Your task to perform on an android device: install app "TextNow: Call + Text Unlimited" Image 0: 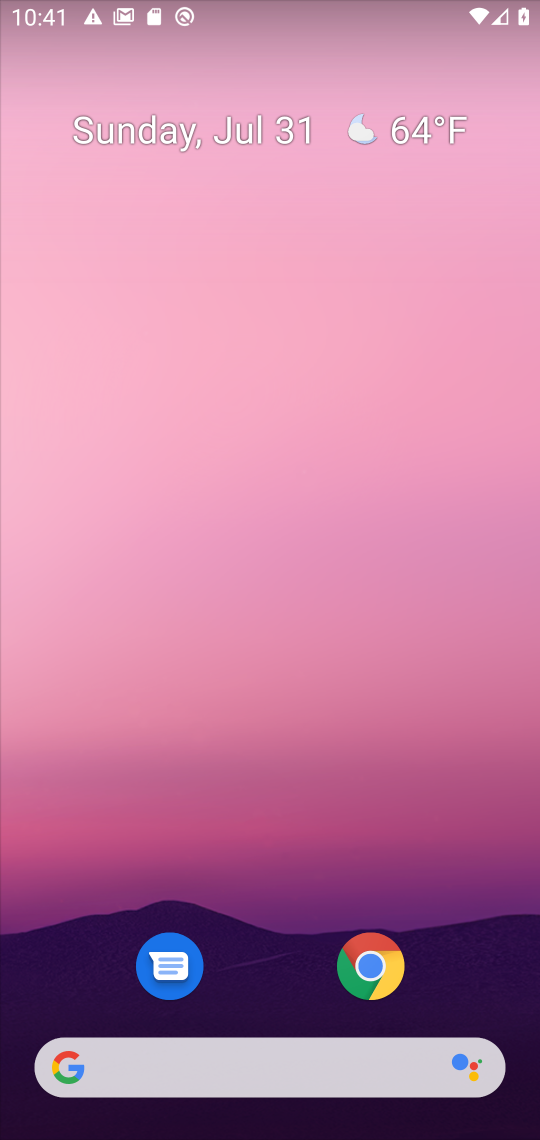
Step 0: drag from (277, 984) to (135, 3)
Your task to perform on an android device: install app "TextNow: Call + Text Unlimited" Image 1: 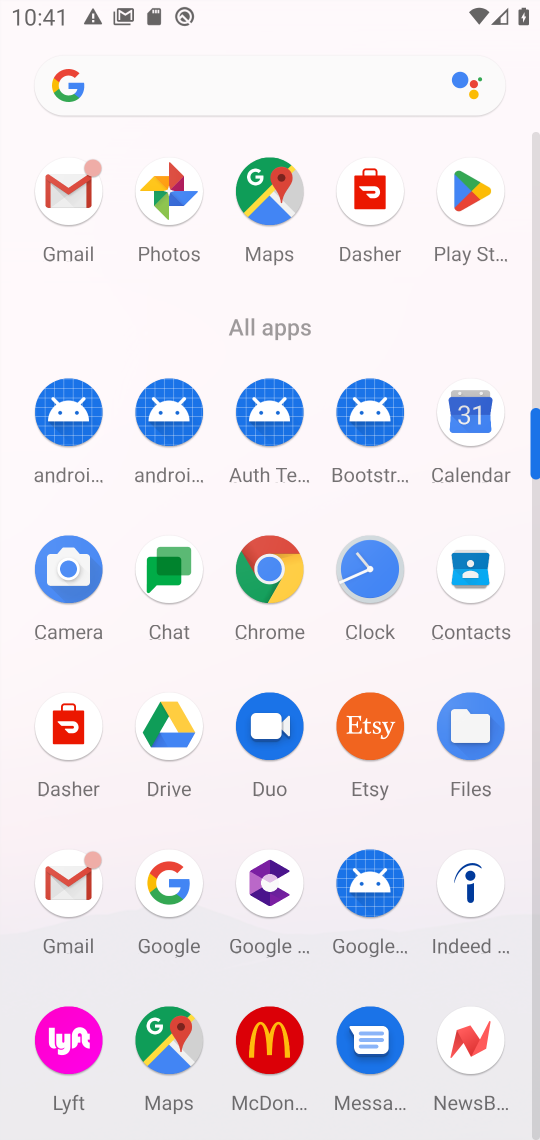
Step 1: click (481, 220)
Your task to perform on an android device: install app "TextNow: Call + Text Unlimited" Image 2: 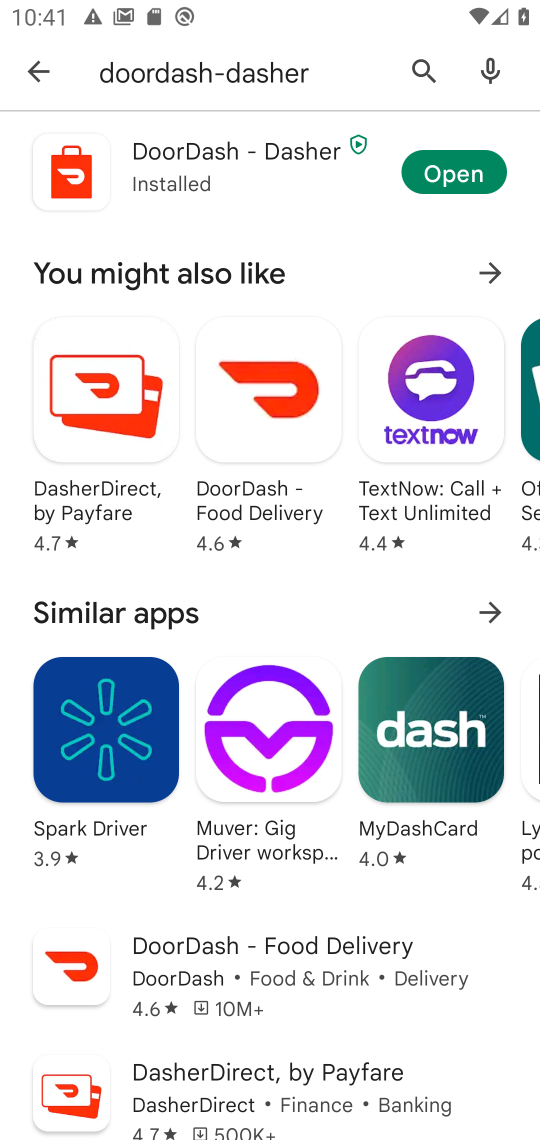
Step 2: click (276, 77)
Your task to perform on an android device: install app "TextNow: Call + Text Unlimited" Image 3: 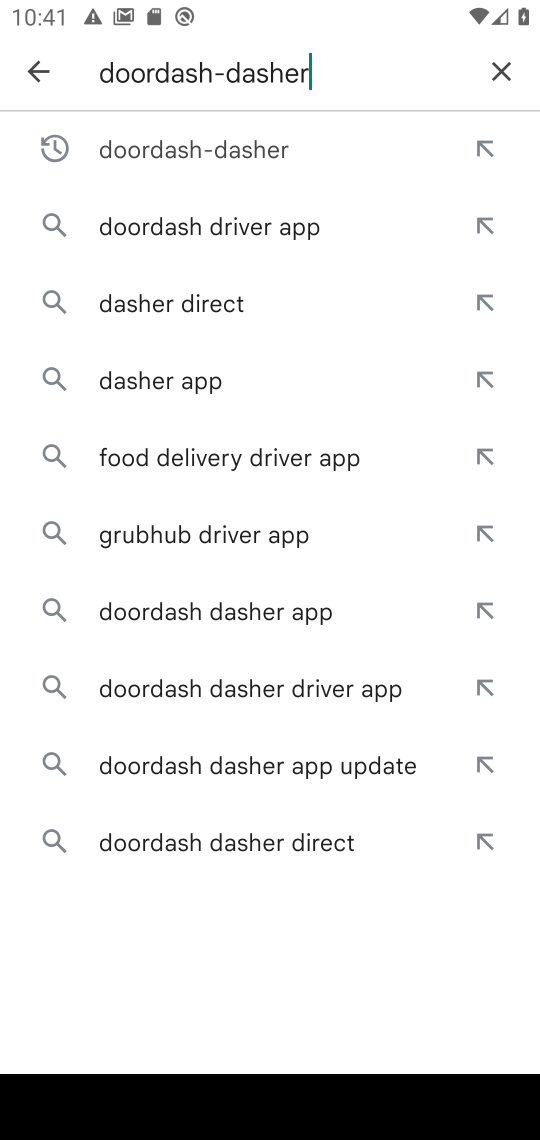
Step 3: click (494, 65)
Your task to perform on an android device: install app "TextNow: Call + Text Unlimited" Image 4: 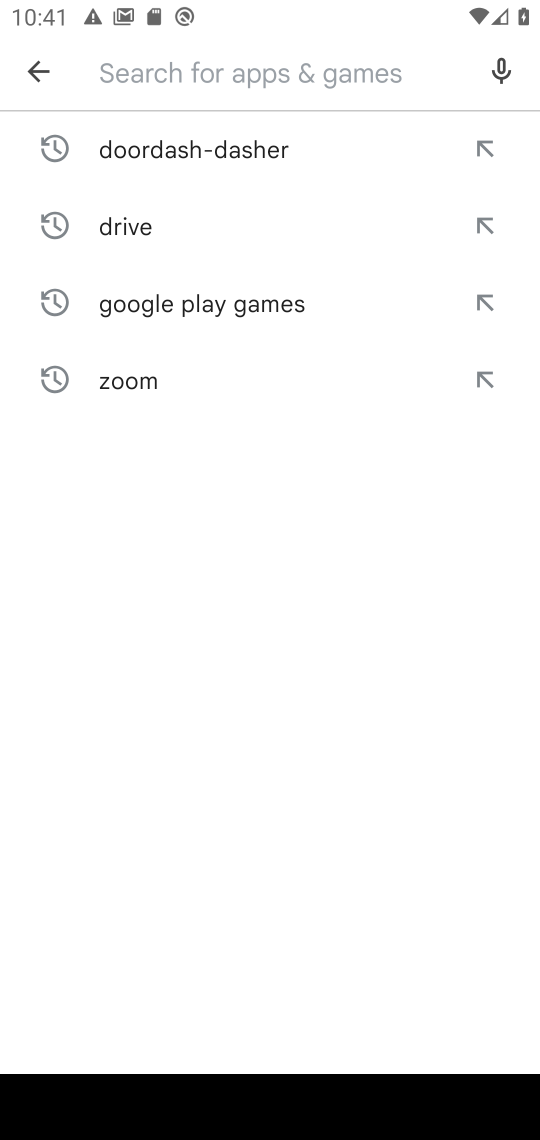
Step 4: type "textnow"
Your task to perform on an android device: install app "TextNow: Call + Text Unlimited" Image 5: 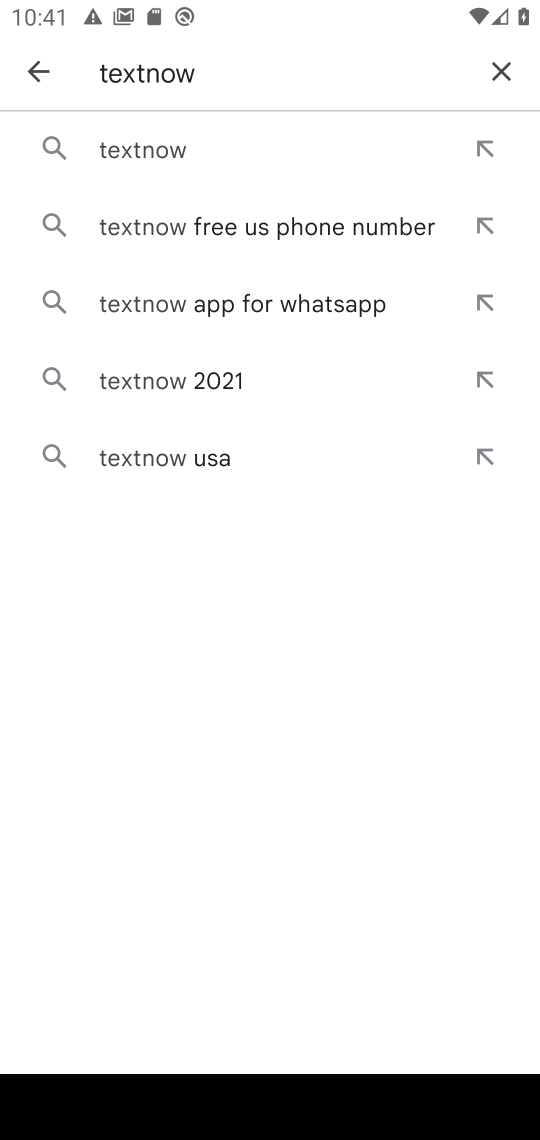
Step 5: click (143, 149)
Your task to perform on an android device: install app "TextNow: Call + Text Unlimited" Image 6: 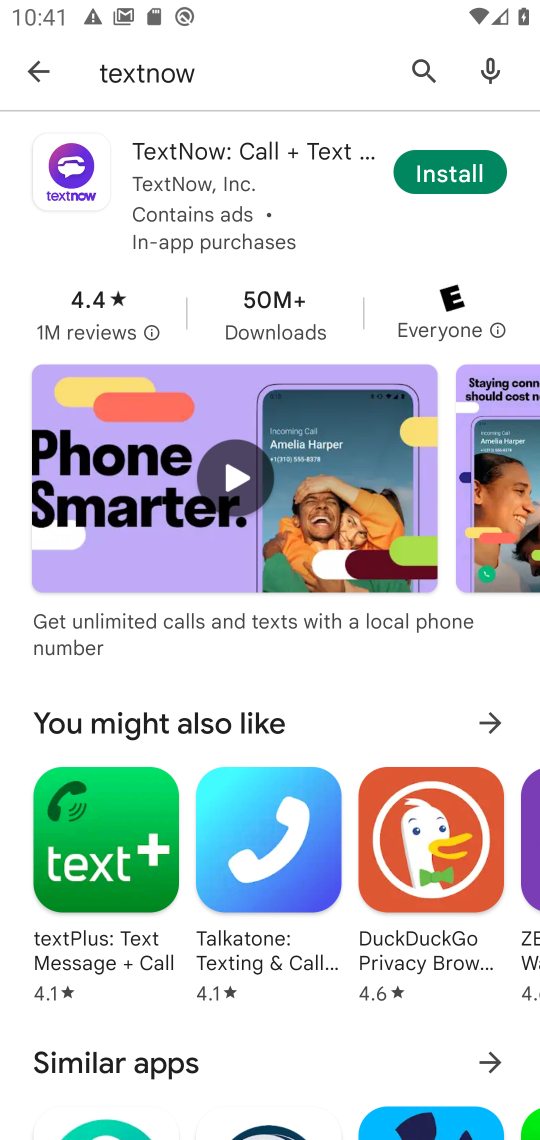
Step 6: click (466, 173)
Your task to perform on an android device: install app "TextNow: Call + Text Unlimited" Image 7: 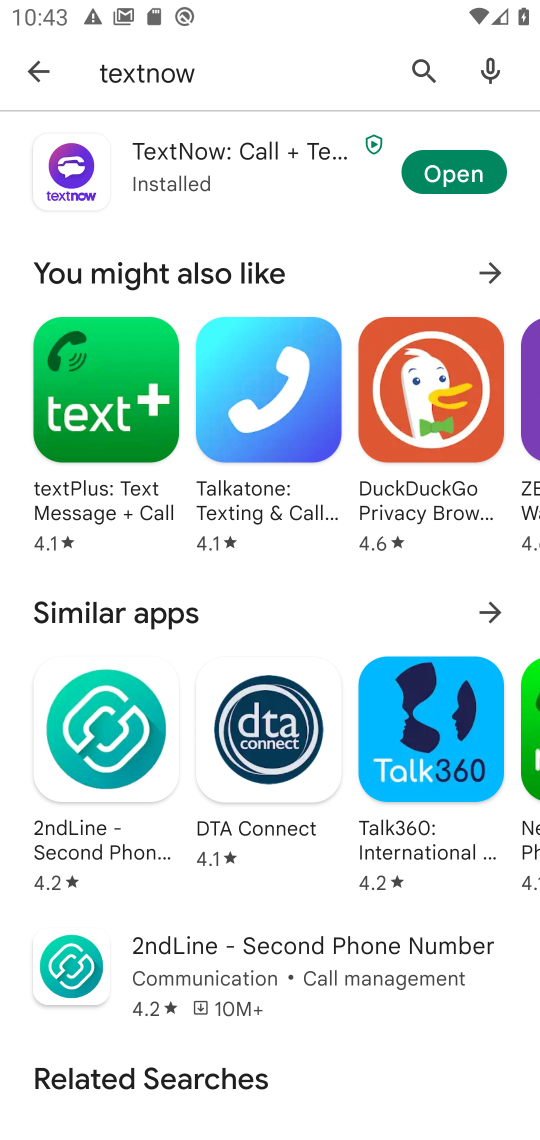
Step 7: task complete